Your task to perform on an android device: add a label to a message in the gmail app Image 0: 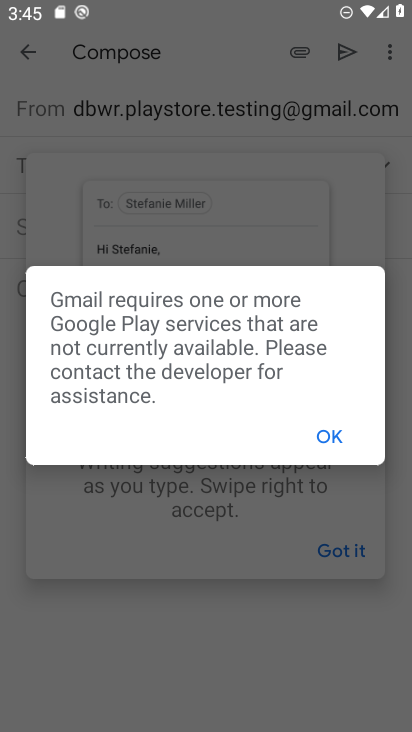
Step 0: press home button
Your task to perform on an android device: add a label to a message in the gmail app Image 1: 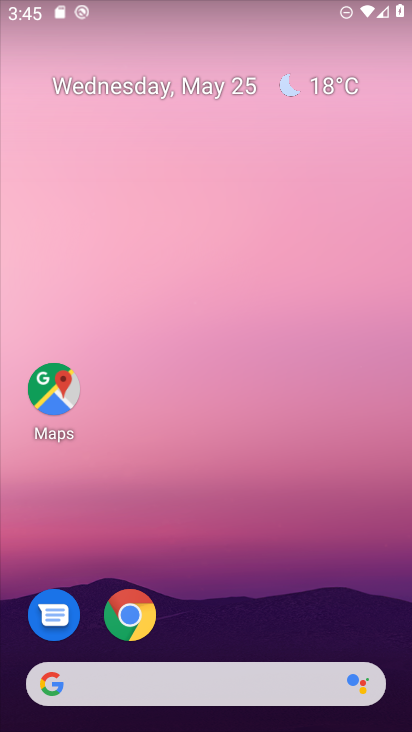
Step 1: drag from (243, 597) to (315, 108)
Your task to perform on an android device: add a label to a message in the gmail app Image 2: 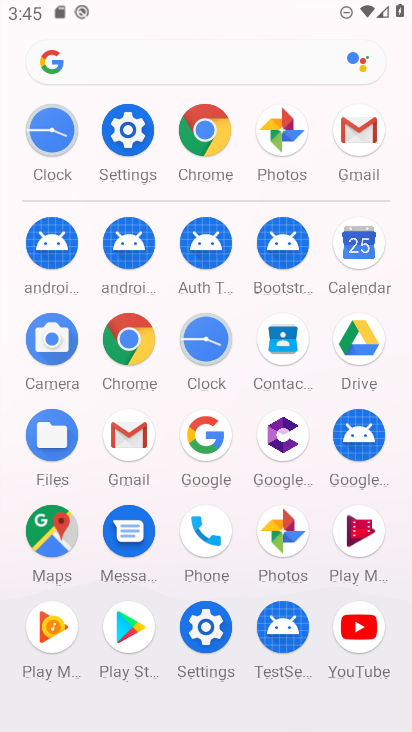
Step 2: click (351, 124)
Your task to perform on an android device: add a label to a message in the gmail app Image 3: 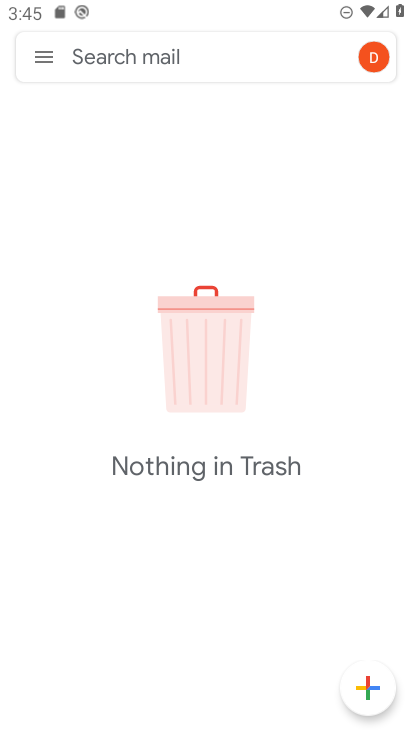
Step 3: click (44, 59)
Your task to perform on an android device: add a label to a message in the gmail app Image 4: 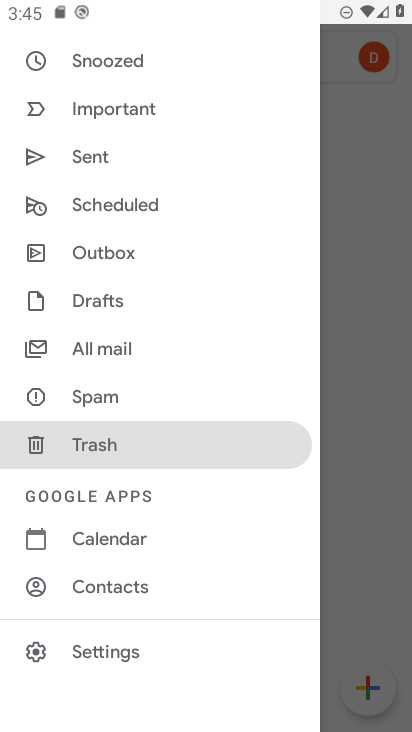
Step 4: click (116, 335)
Your task to perform on an android device: add a label to a message in the gmail app Image 5: 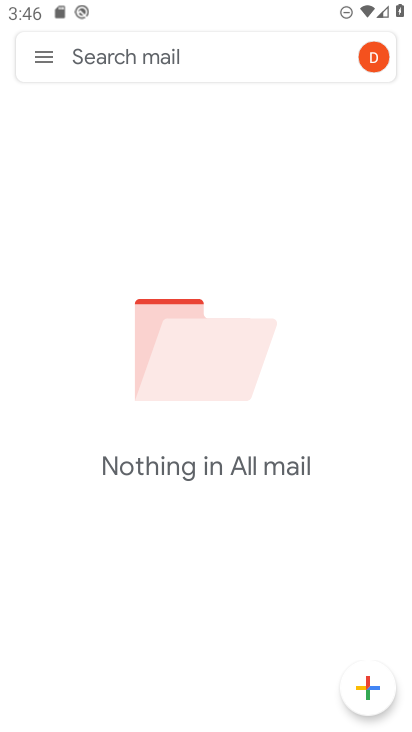
Step 5: task complete